Your task to perform on an android device: turn on data saver in the chrome app Image 0: 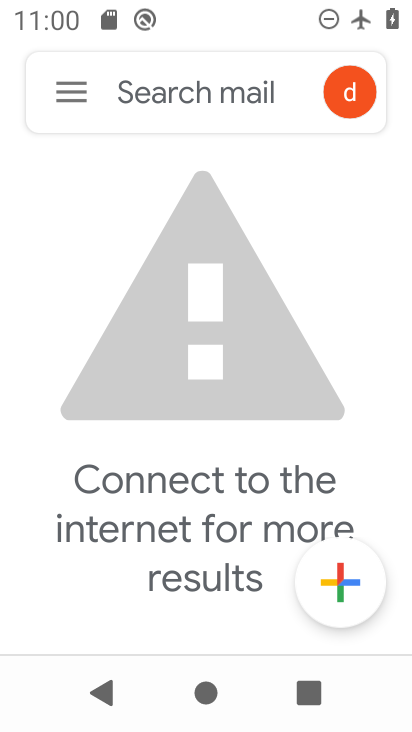
Step 0: press home button
Your task to perform on an android device: turn on data saver in the chrome app Image 1: 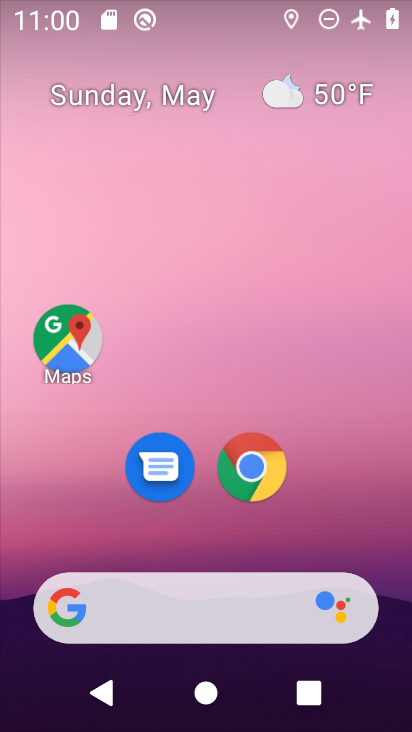
Step 1: click (247, 485)
Your task to perform on an android device: turn on data saver in the chrome app Image 2: 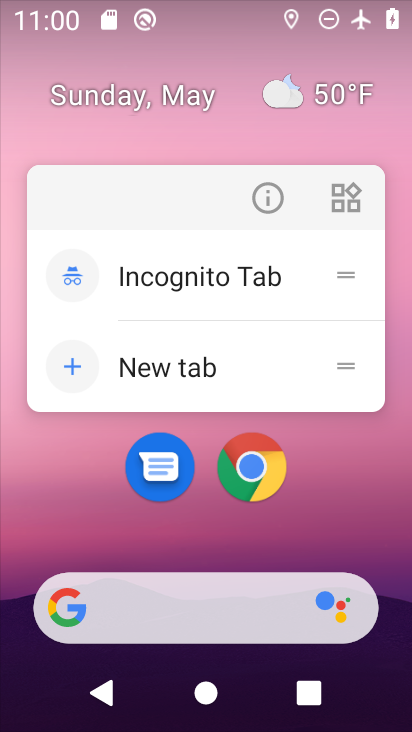
Step 2: click (247, 469)
Your task to perform on an android device: turn on data saver in the chrome app Image 3: 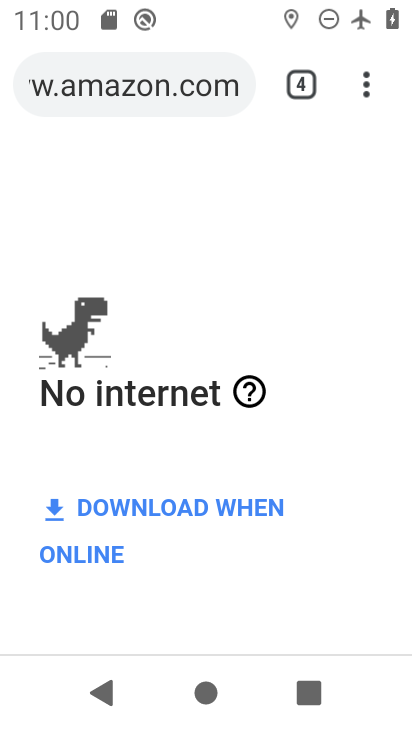
Step 3: drag from (363, 88) to (115, 500)
Your task to perform on an android device: turn on data saver in the chrome app Image 4: 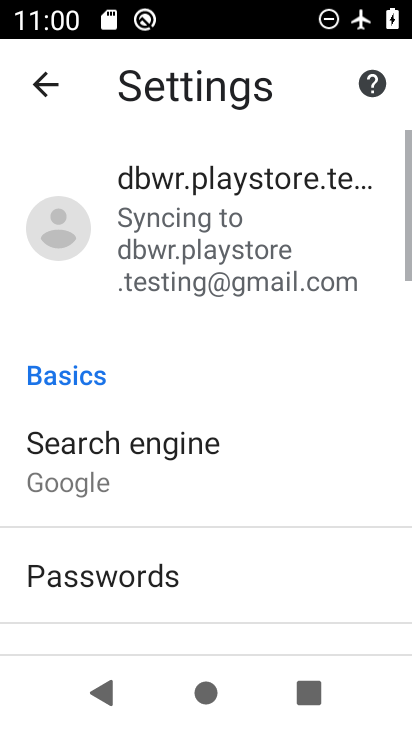
Step 4: drag from (209, 573) to (214, 275)
Your task to perform on an android device: turn on data saver in the chrome app Image 5: 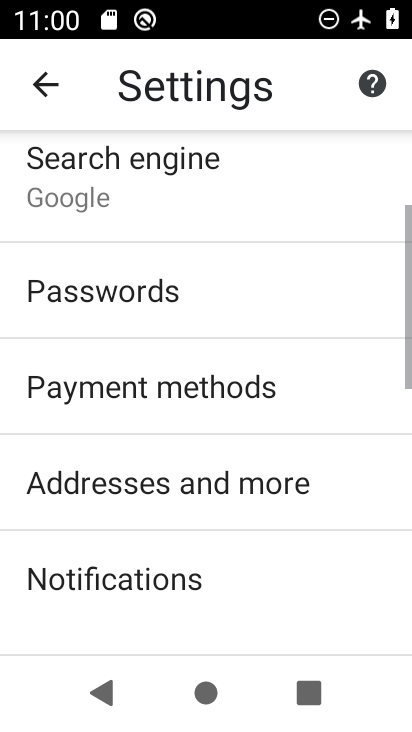
Step 5: drag from (214, 544) to (256, 263)
Your task to perform on an android device: turn on data saver in the chrome app Image 6: 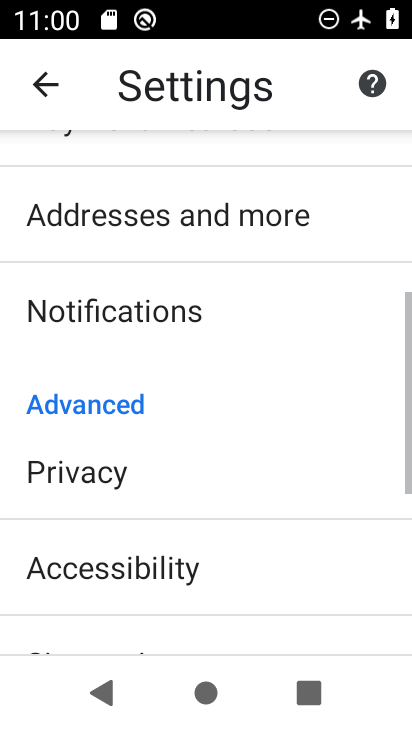
Step 6: drag from (198, 611) to (250, 285)
Your task to perform on an android device: turn on data saver in the chrome app Image 7: 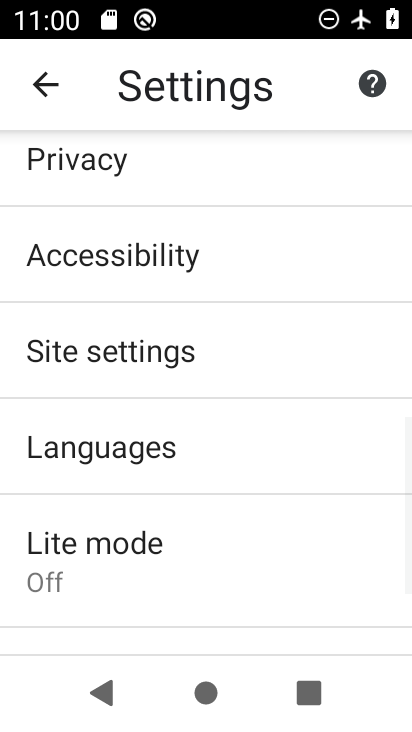
Step 7: click (143, 533)
Your task to perform on an android device: turn on data saver in the chrome app Image 8: 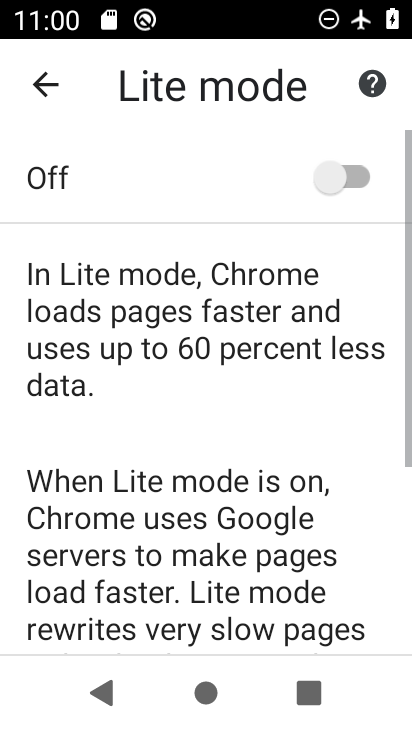
Step 8: click (360, 172)
Your task to perform on an android device: turn on data saver in the chrome app Image 9: 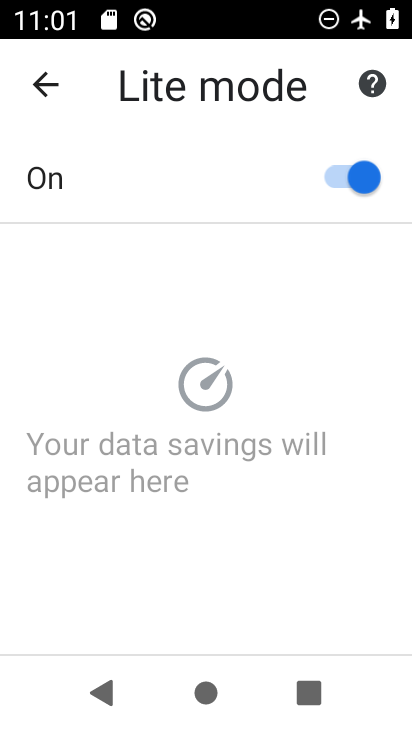
Step 9: task complete